Your task to perform on an android device: Open my contact list Image 0: 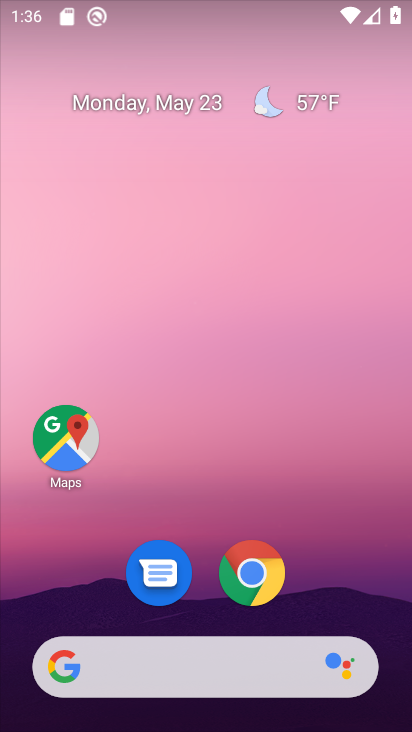
Step 0: drag from (332, 573) to (306, 84)
Your task to perform on an android device: Open my contact list Image 1: 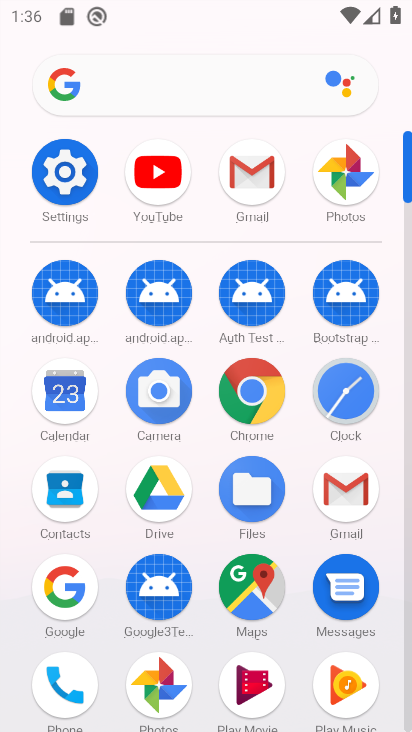
Step 1: click (64, 499)
Your task to perform on an android device: Open my contact list Image 2: 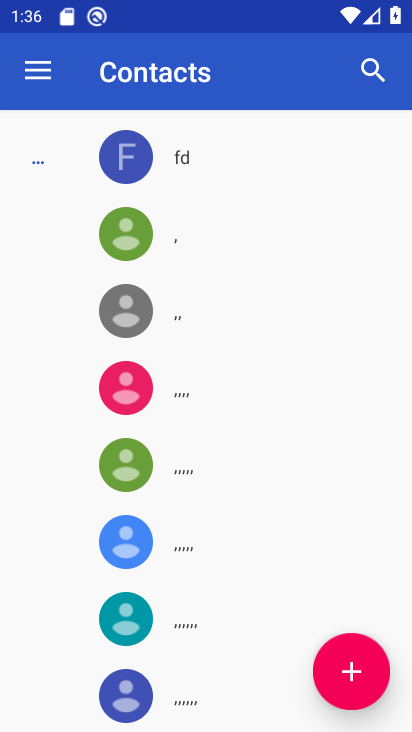
Step 2: task complete